Your task to perform on an android device: turn pop-ups off in chrome Image 0: 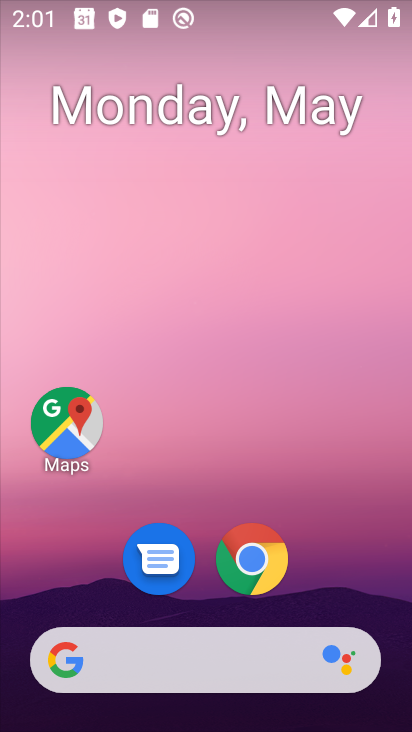
Step 0: click (268, 564)
Your task to perform on an android device: turn pop-ups off in chrome Image 1: 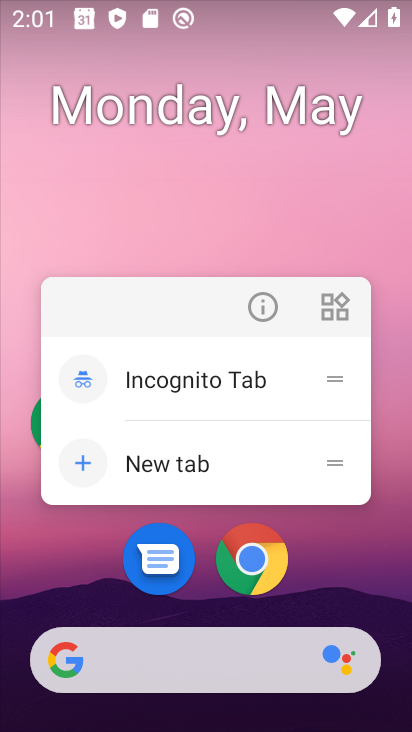
Step 1: click (246, 565)
Your task to perform on an android device: turn pop-ups off in chrome Image 2: 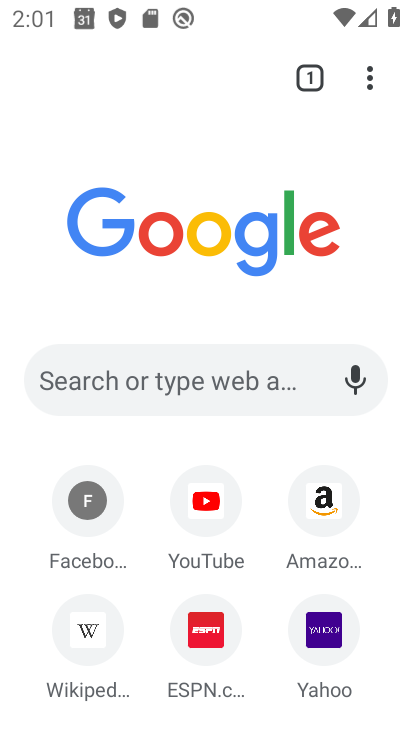
Step 2: click (369, 82)
Your task to perform on an android device: turn pop-ups off in chrome Image 3: 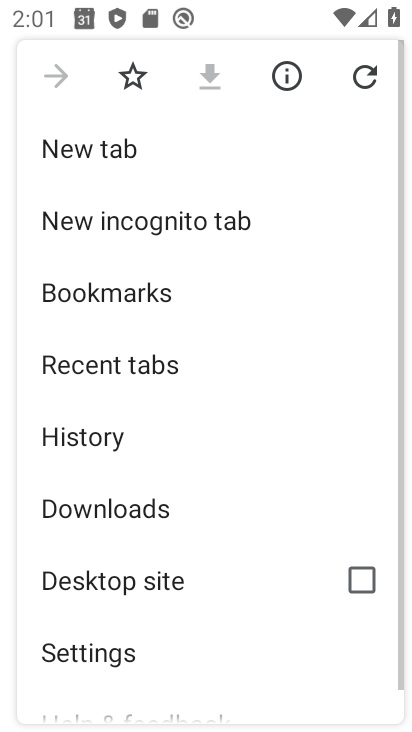
Step 3: drag from (226, 588) to (200, 70)
Your task to perform on an android device: turn pop-ups off in chrome Image 4: 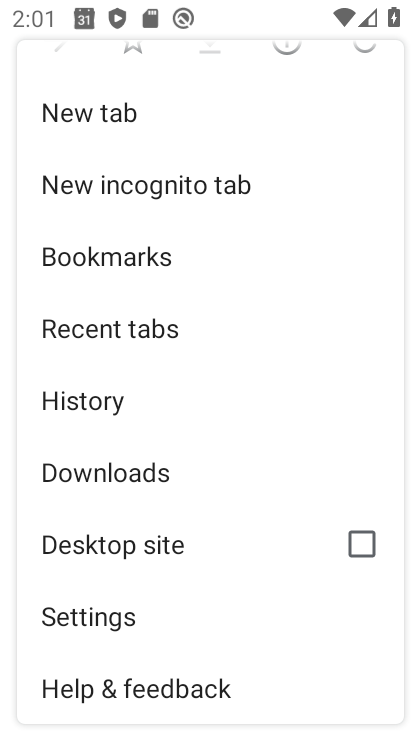
Step 4: click (122, 622)
Your task to perform on an android device: turn pop-ups off in chrome Image 5: 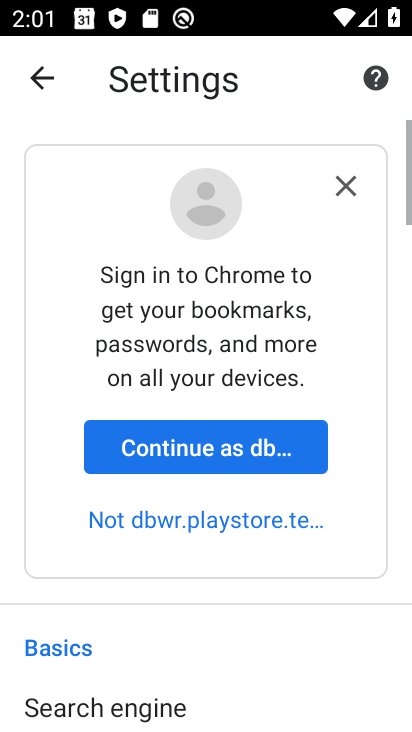
Step 5: drag from (122, 622) to (100, 159)
Your task to perform on an android device: turn pop-ups off in chrome Image 6: 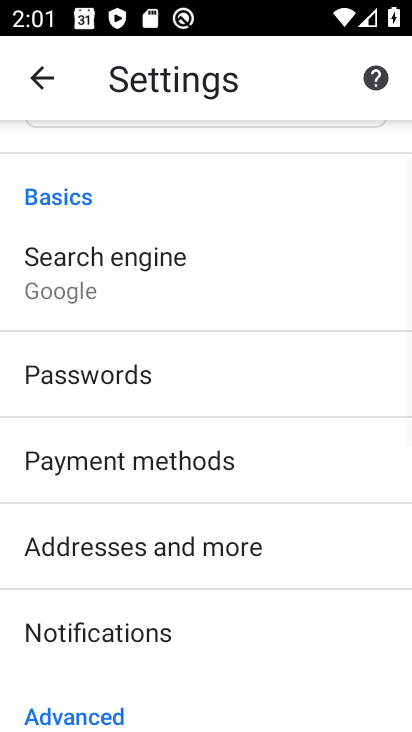
Step 6: drag from (132, 631) to (119, 200)
Your task to perform on an android device: turn pop-ups off in chrome Image 7: 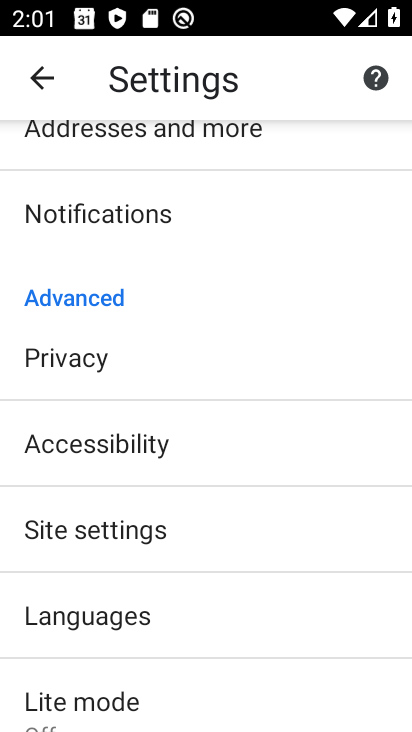
Step 7: click (78, 537)
Your task to perform on an android device: turn pop-ups off in chrome Image 8: 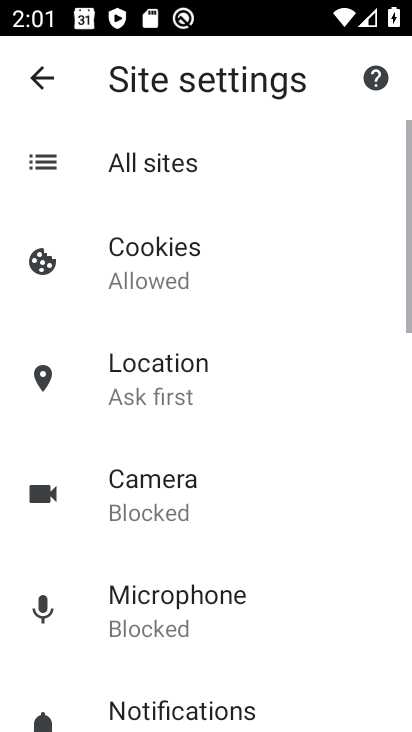
Step 8: drag from (252, 639) to (245, 148)
Your task to perform on an android device: turn pop-ups off in chrome Image 9: 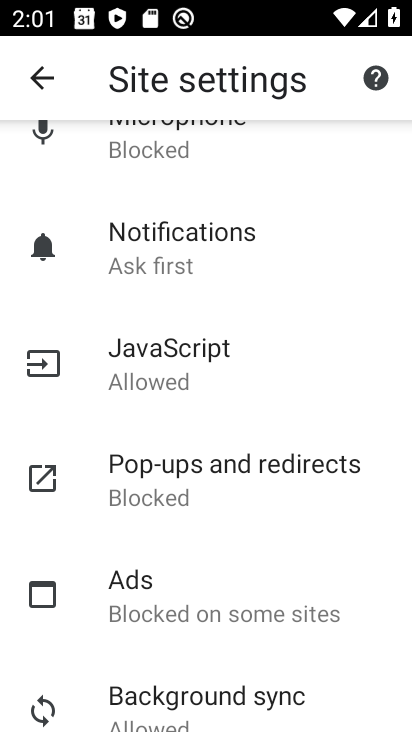
Step 9: click (188, 483)
Your task to perform on an android device: turn pop-ups off in chrome Image 10: 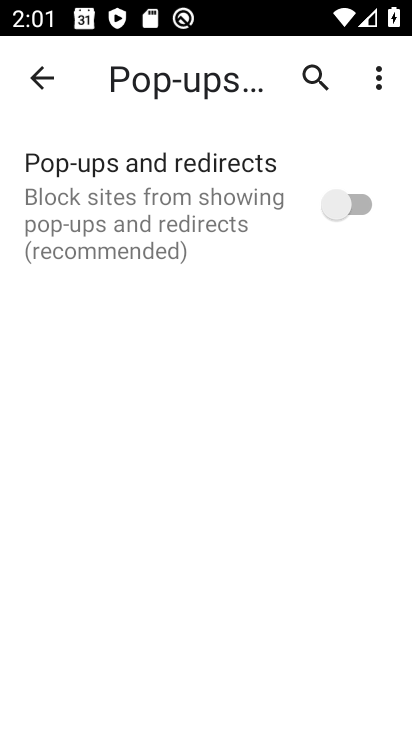
Step 10: task complete